Your task to perform on an android device: toggle improve location accuracy Image 0: 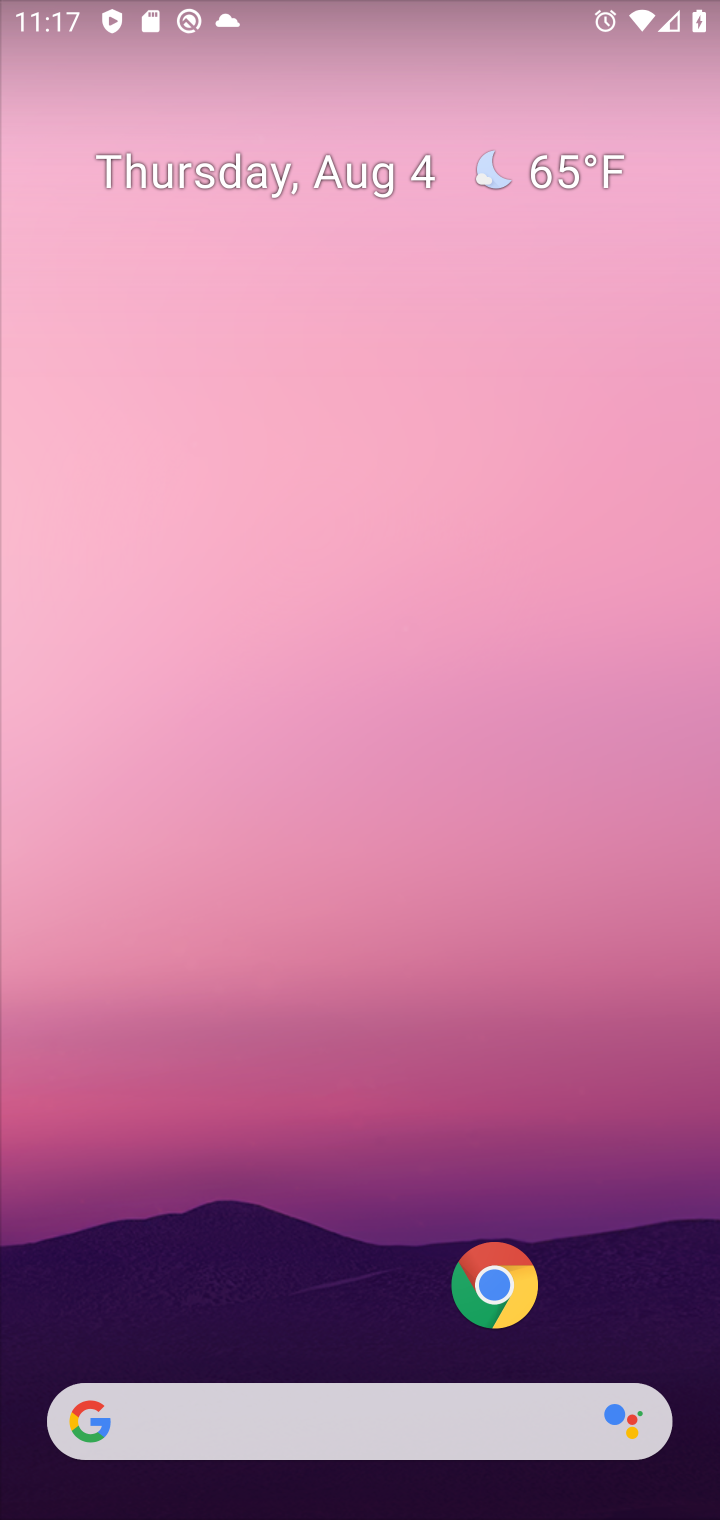
Step 0: press home button
Your task to perform on an android device: toggle improve location accuracy Image 1: 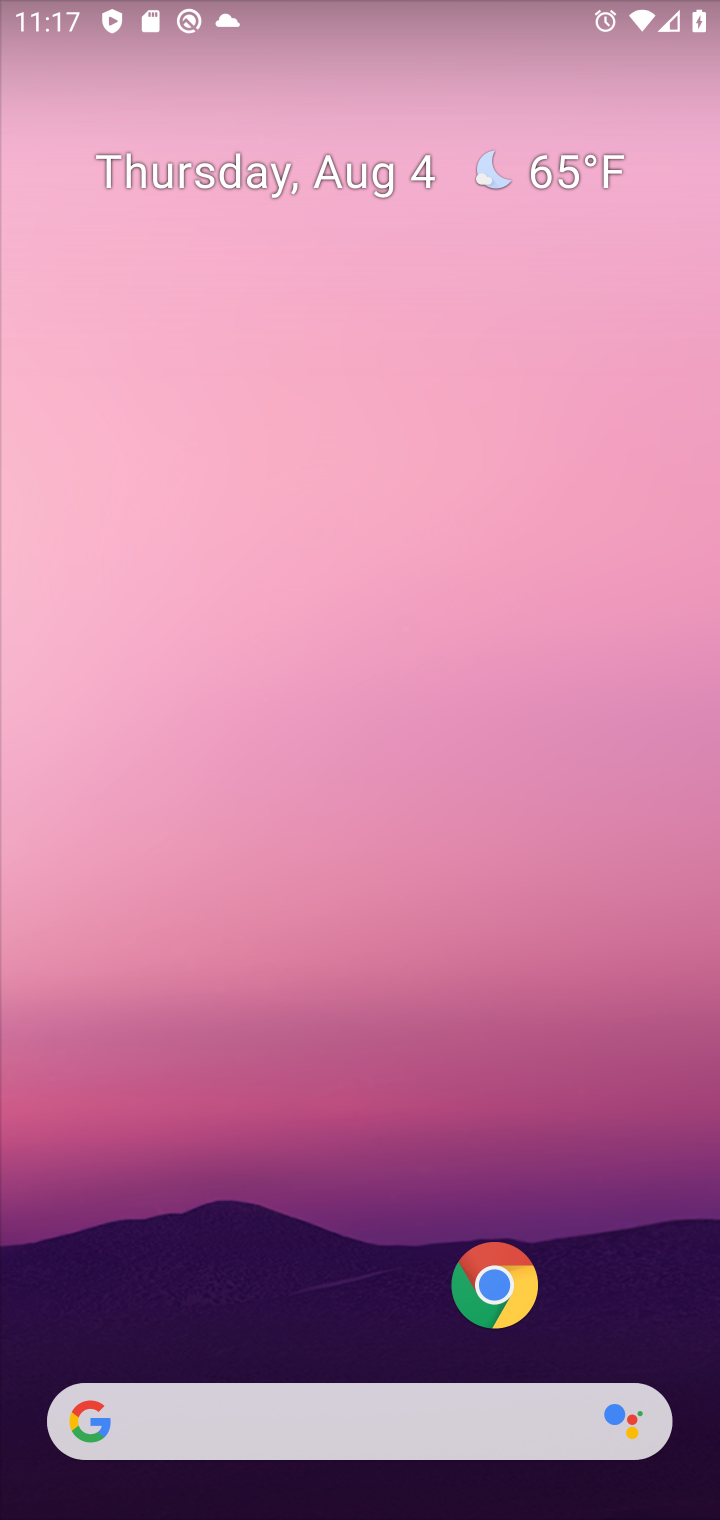
Step 1: click (507, 1201)
Your task to perform on an android device: toggle improve location accuracy Image 2: 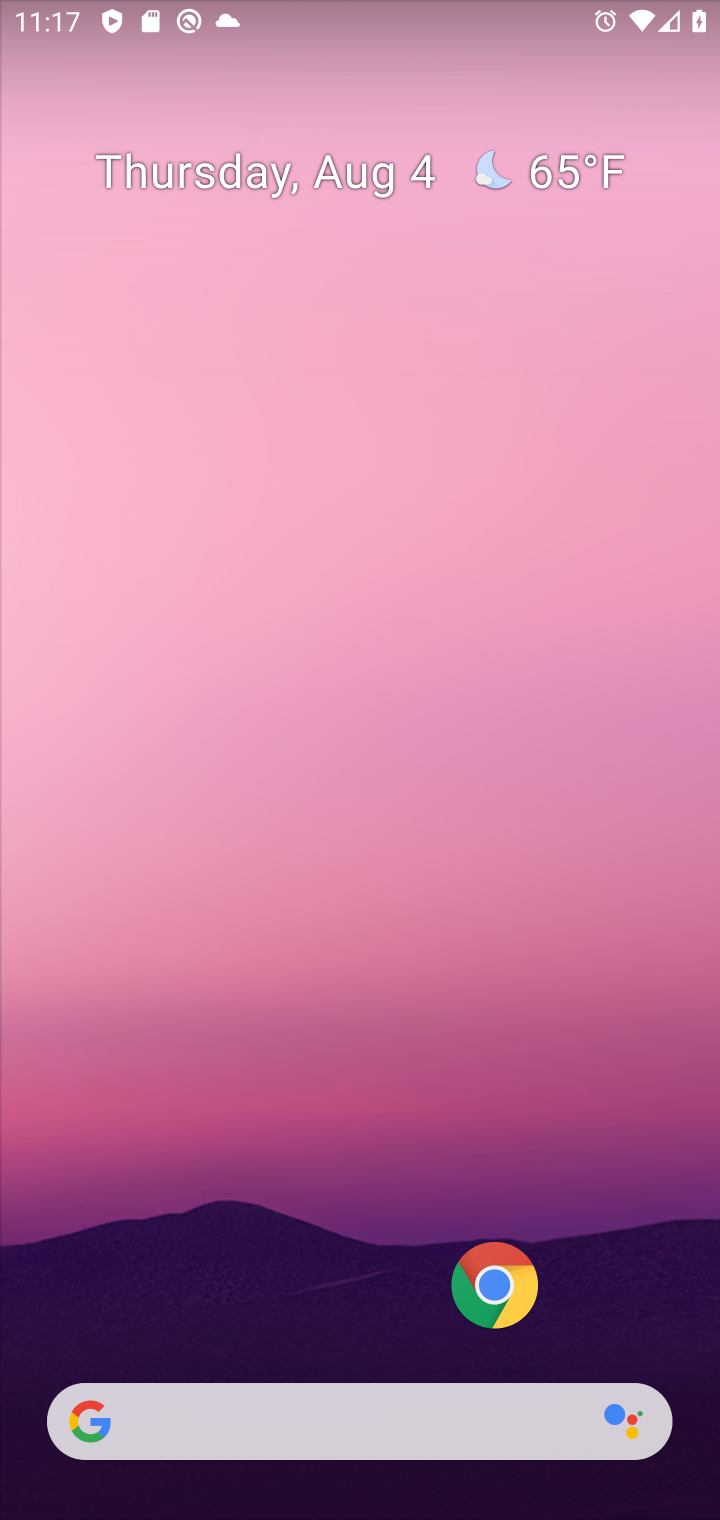
Step 2: drag from (324, 1284) to (323, 185)
Your task to perform on an android device: toggle improve location accuracy Image 3: 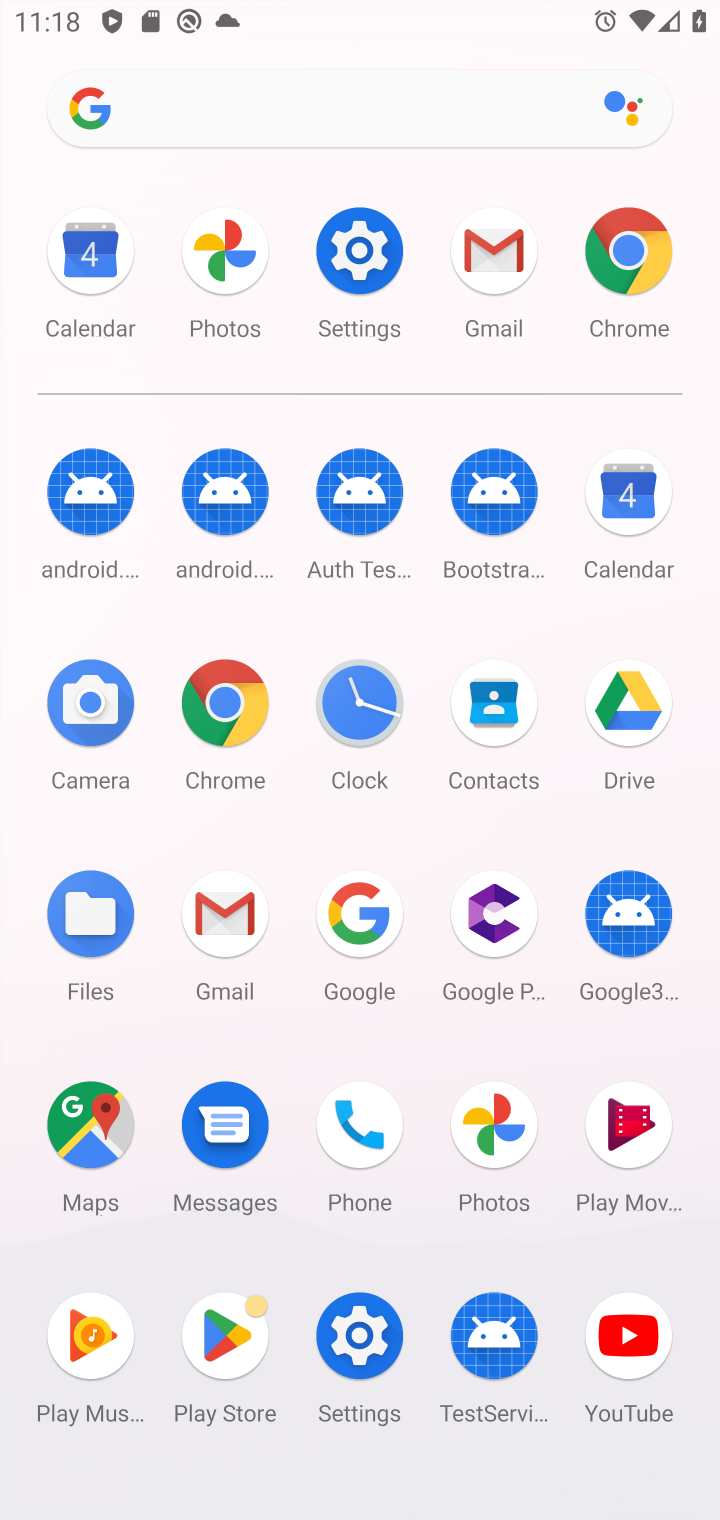
Step 3: click (371, 1362)
Your task to perform on an android device: toggle improve location accuracy Image 4: 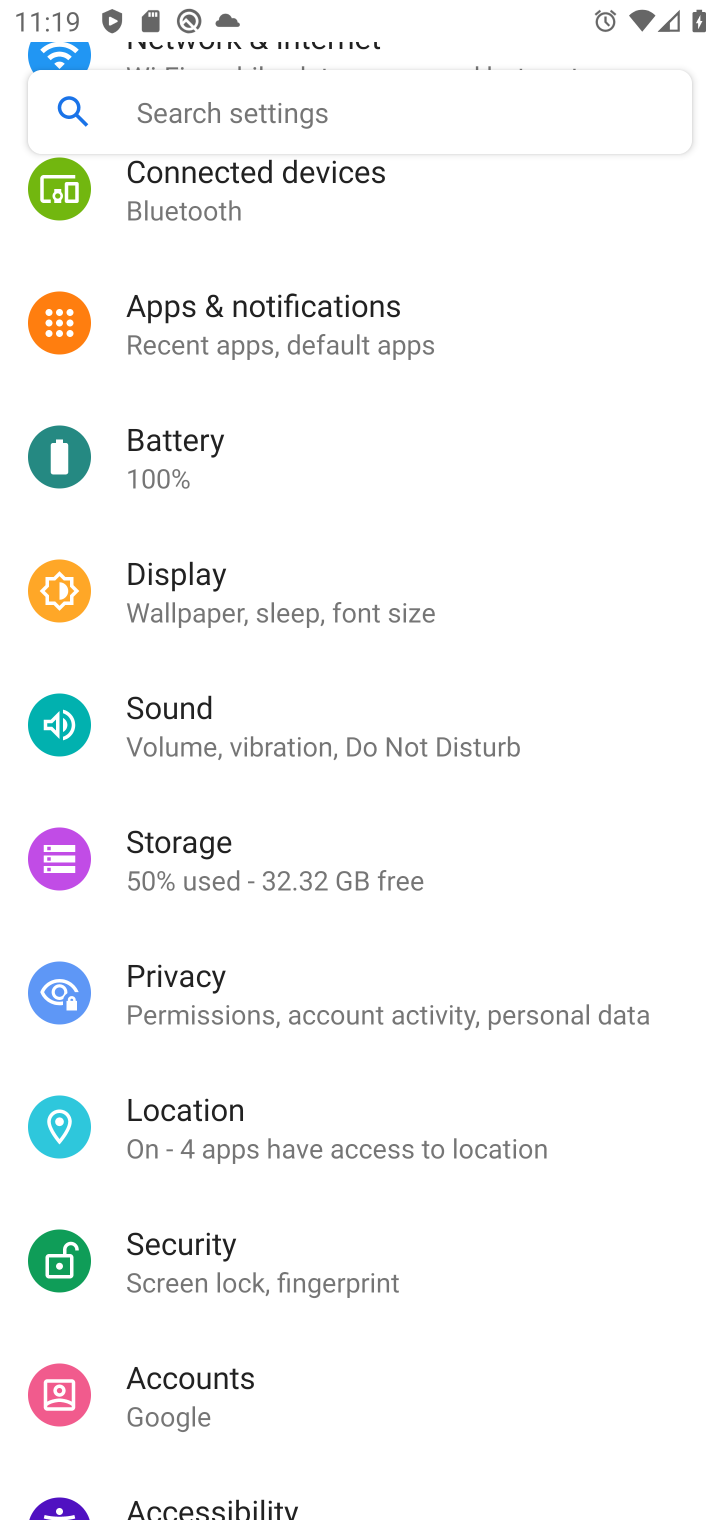
Step 4: click (226, 1110)
Your task to perform on an android device: toggle improve location accuracy Image 5: 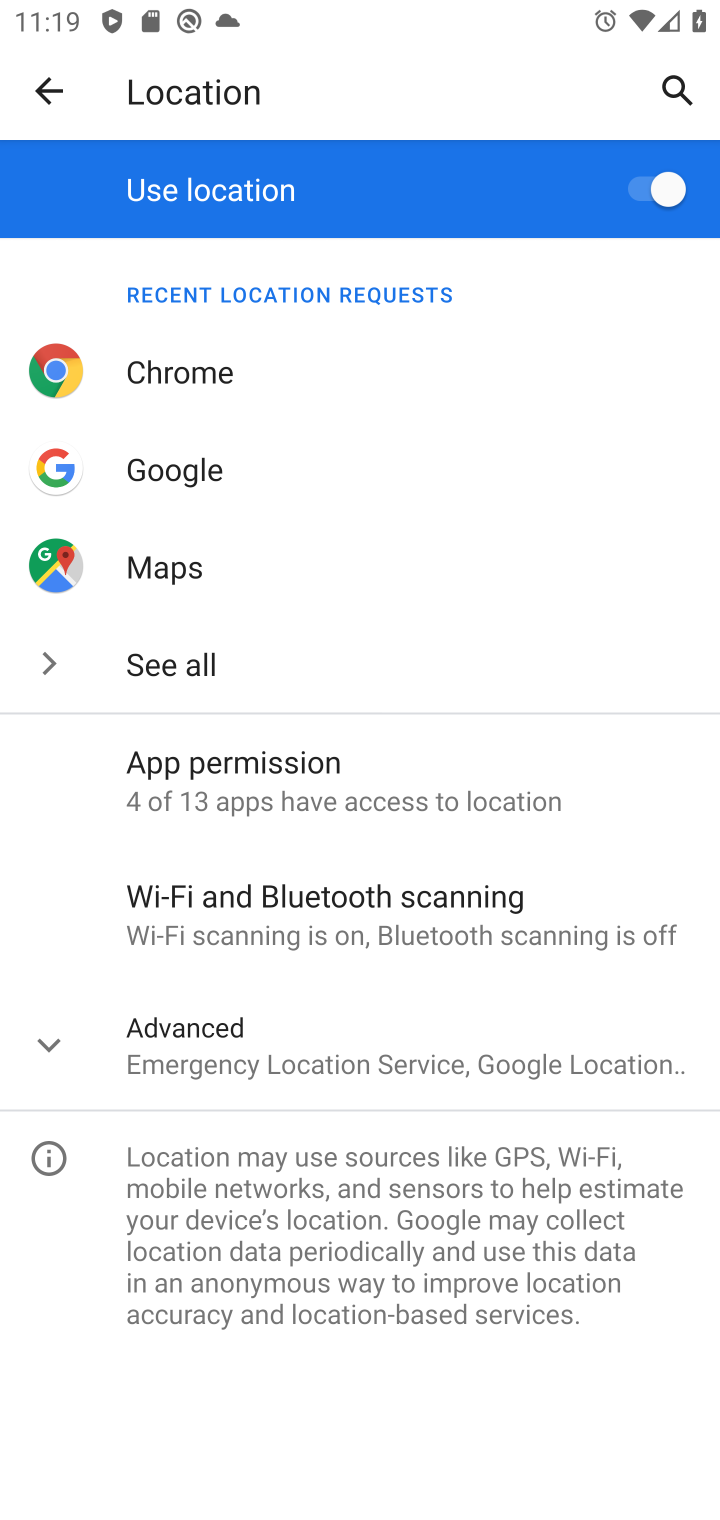
Step 5: click (495, 169)
Your task to perform on an android device: toggle improve location accuracy Image 6: 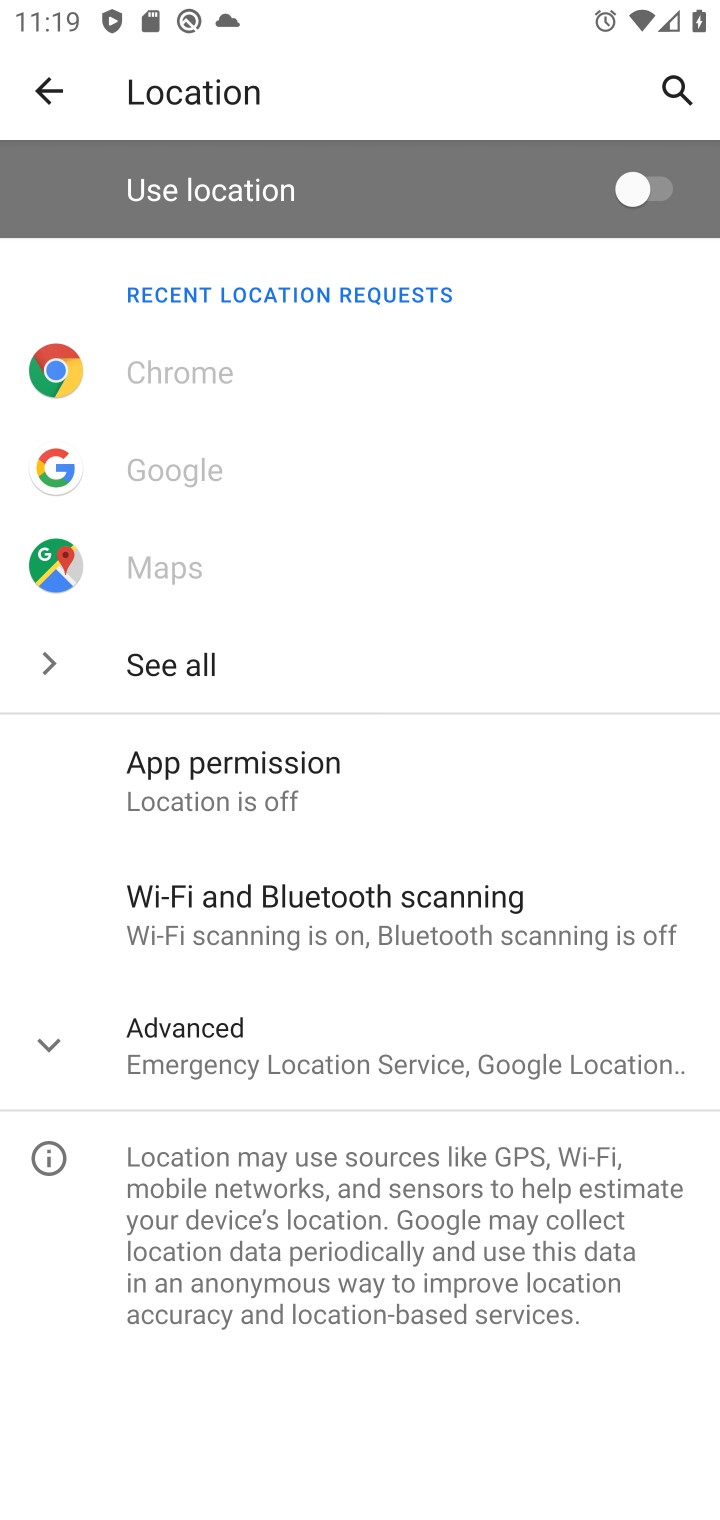
Step 6: task complete